Your task to perform on an android device: Open Youtube and go to "Your channel" Image 0: 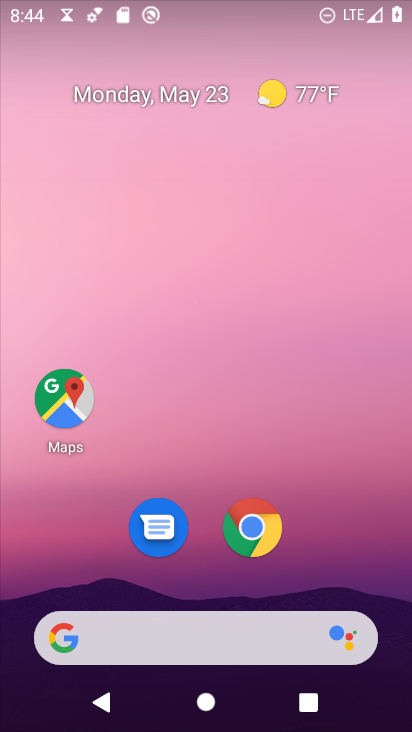
Step 0: press home button
Your task to perform on an android device: Open Youtube and go to "Your channel" Image 1: 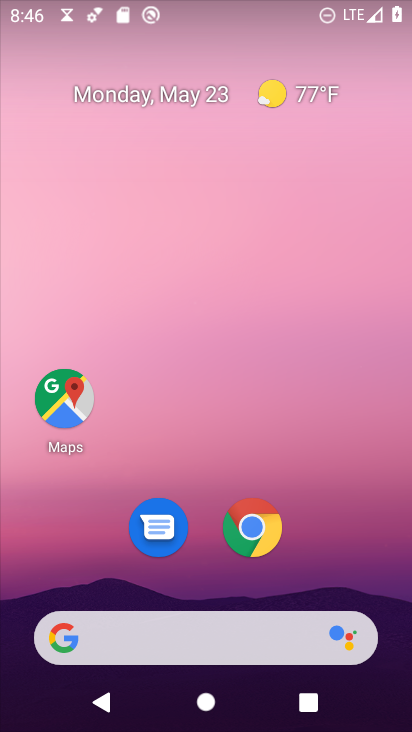
Step 1: drag from (295, 662) to (198, 120)
Your task to perform on an android device: Open Youtube and go to "Your channel" Image 2: 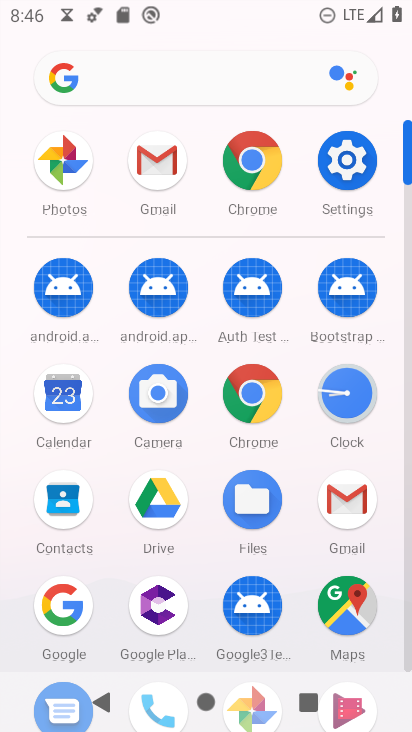
Step 2: drag from (298, 538) to (335, 397)
Your task to perform on an android device: Open Youtube and go to "Your channel" Image 3: 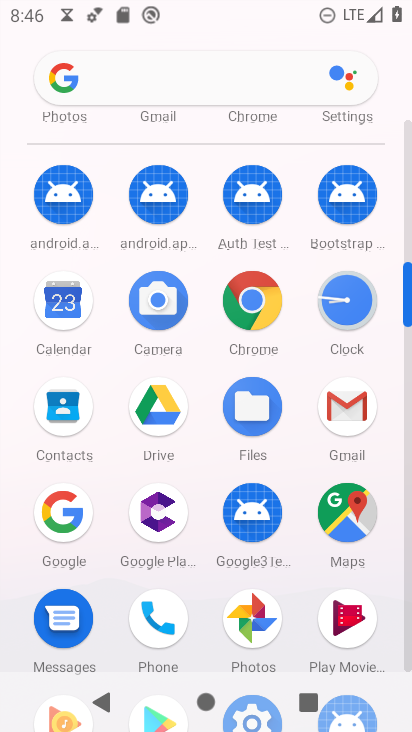
Step 3: drag from (191, 586) to (182, 396)
Your task to perform on an android device: Open Youtube and go to "Your channel" Image 4: 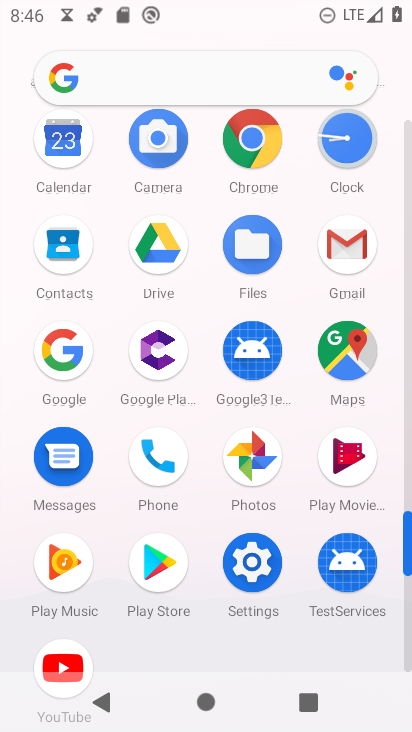
Step 4: click (84, 659)
Your task to perform on an android device: Open Youtube and go to "Your channel" Image 5: 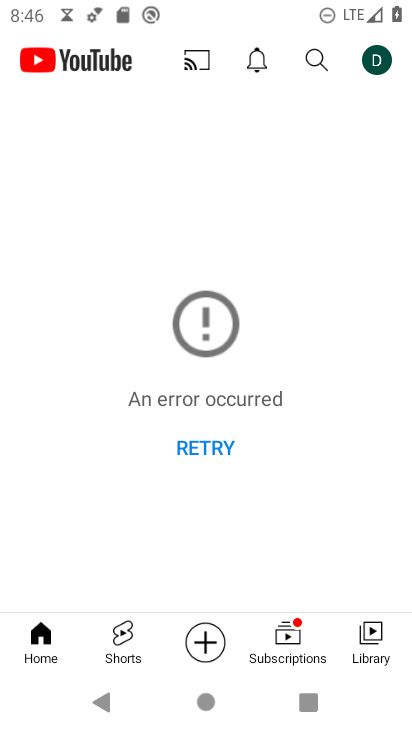
Step 5: click (367, 54)
Your task to perform on an android device: Open Youtube and go to "Your channel" Image 6: 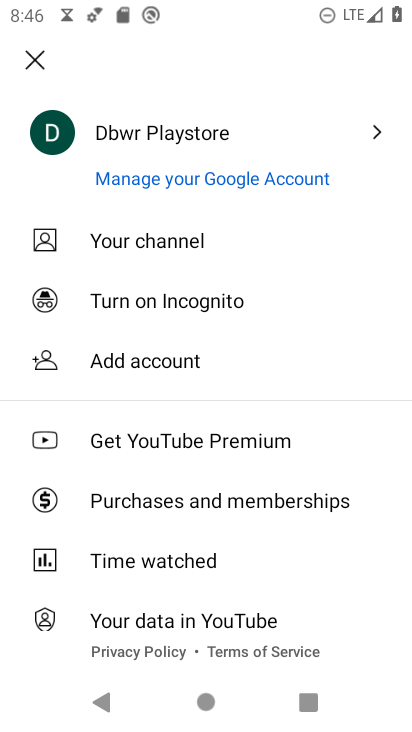
Step 6: click (151, 250)
Your task to perform on an android device: Open Youtube and go to "Your channel" Image 7: 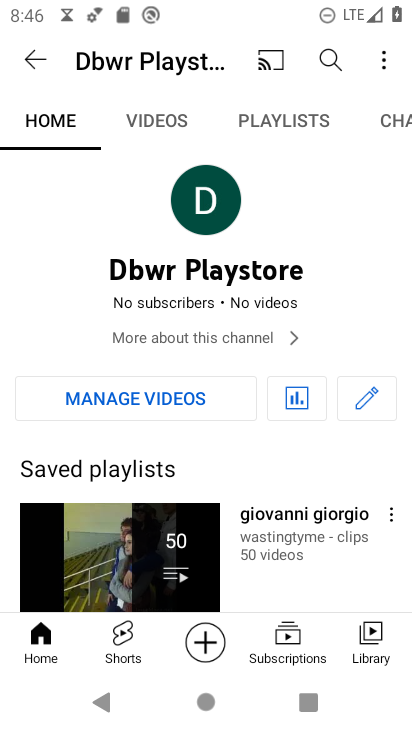
Step 7: task complete